Your task to perform on an android device: See recent photos Image 0: 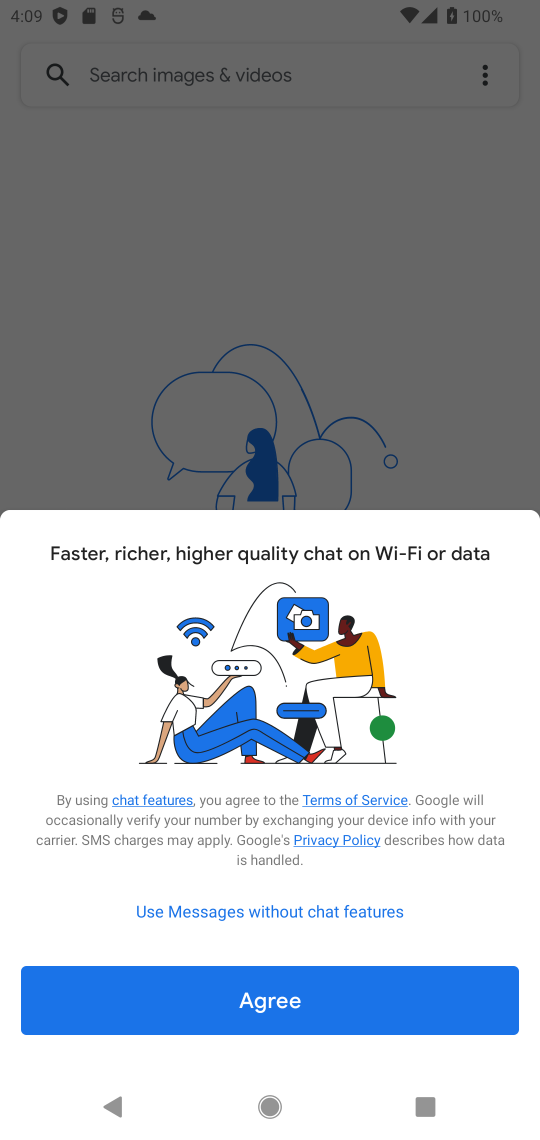
Step 0: press home button
Your task to perform on an android device: See recent photos Image 1: 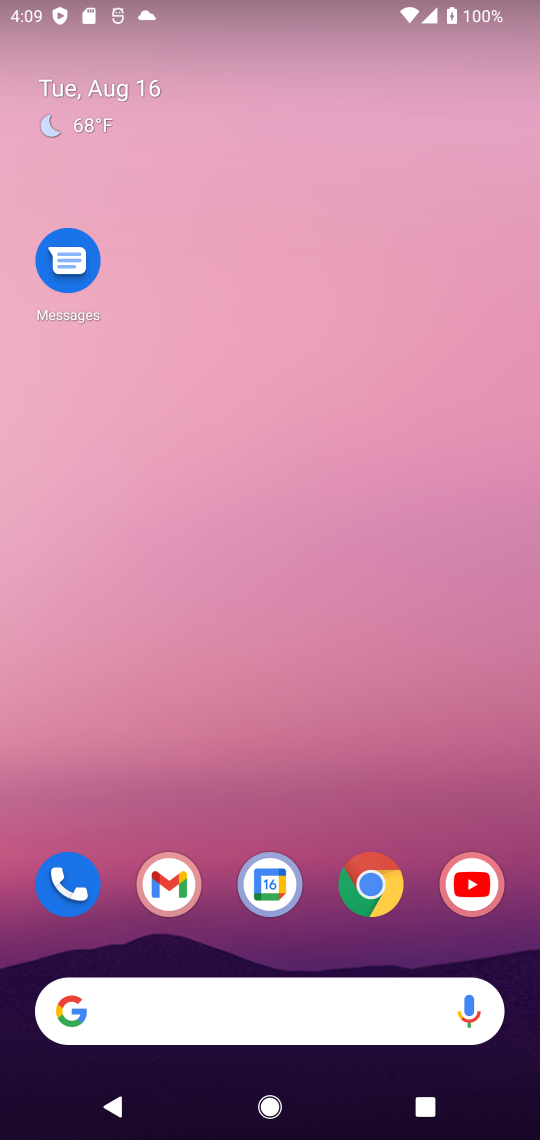
Step 1: drag from (146, 153) to (180, 16)
Your task to perform on an android device: See recent photos Image 2: 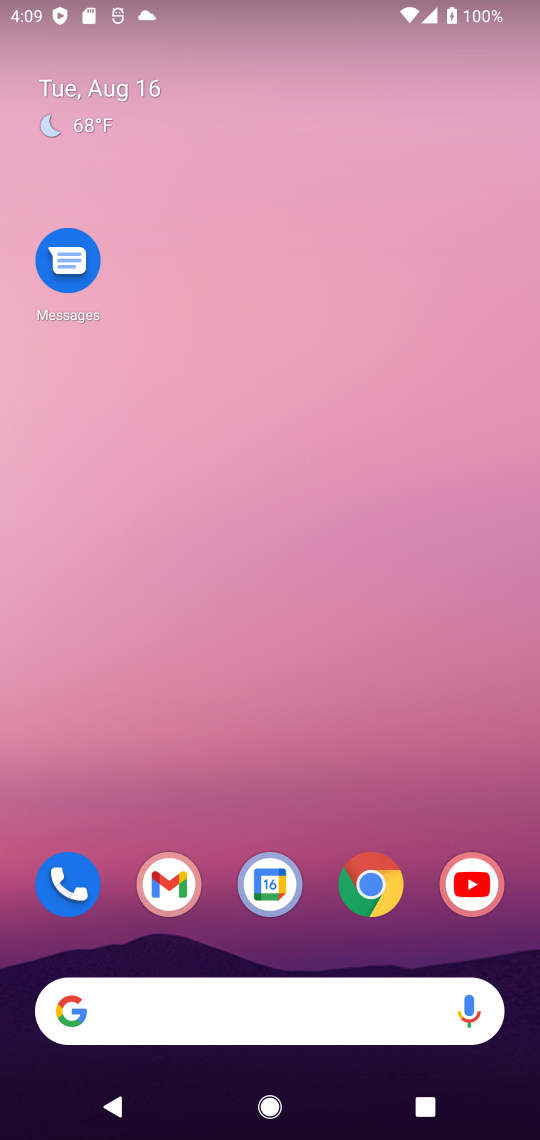
Step 2: drag from (94, 928) to (326, 28)
Your task to perform on an android device: See recent photos Image 3: 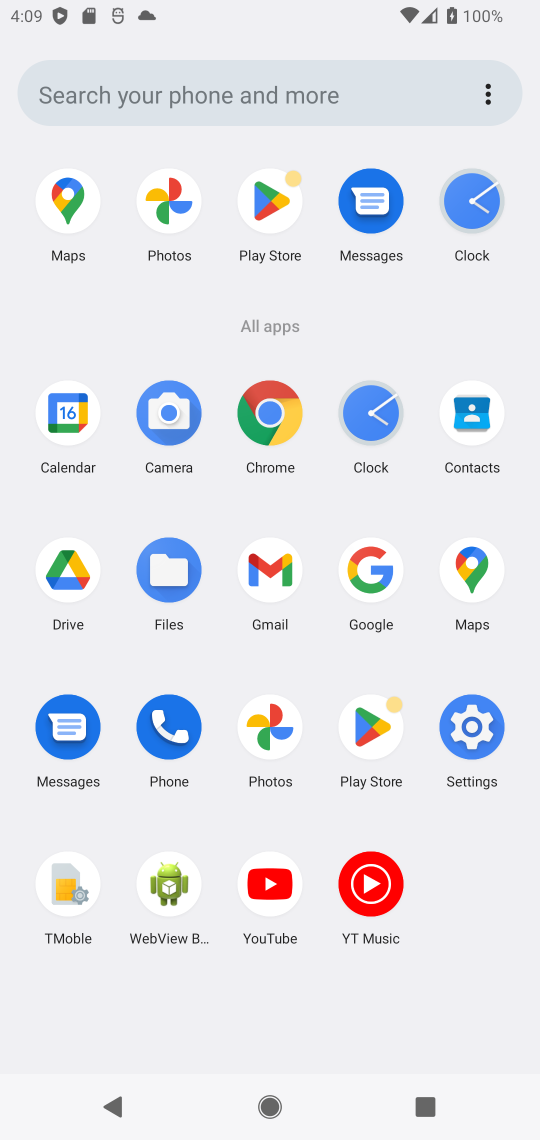
Step 3: click (269, 744)
Your task to perform on an android device: See recent photos Image 4: 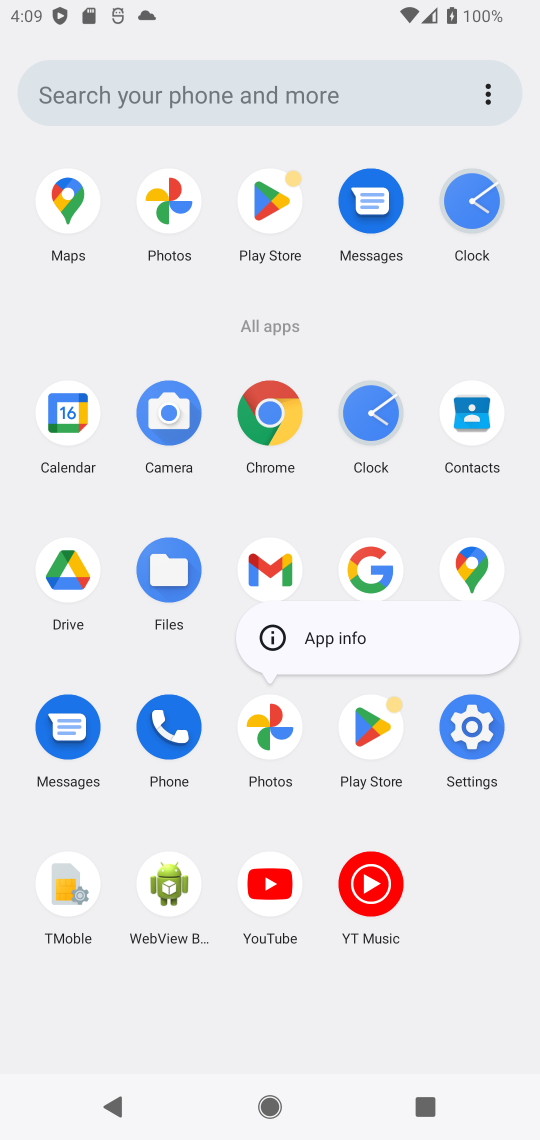
Step 4: click (269, 724)
Your task to perform on an android device: See recent photos Image 5: 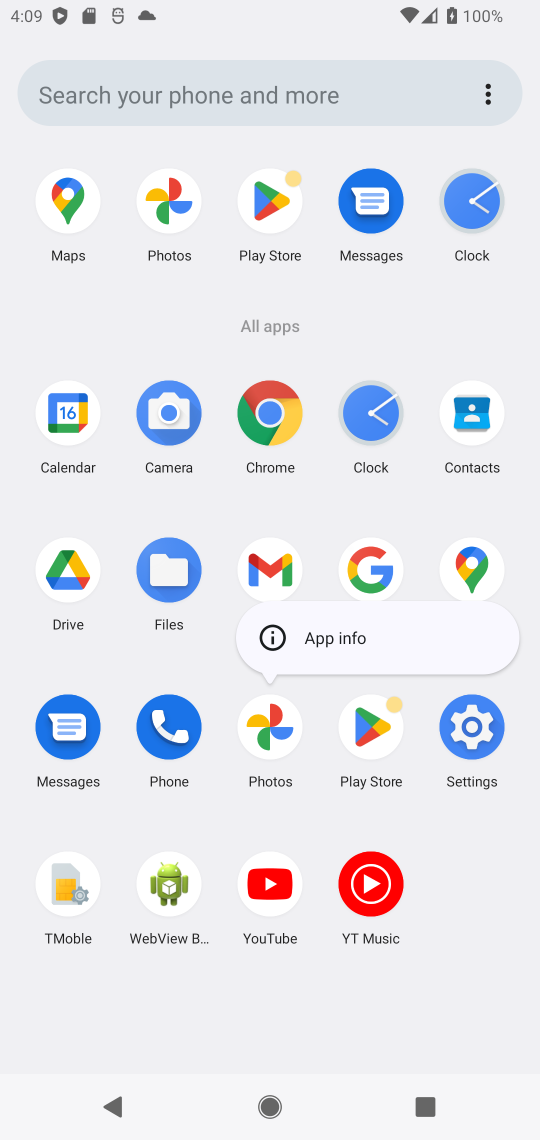
Step 5: click (251, 734)
Your task to perform on an android device: See recent photos Image 6: 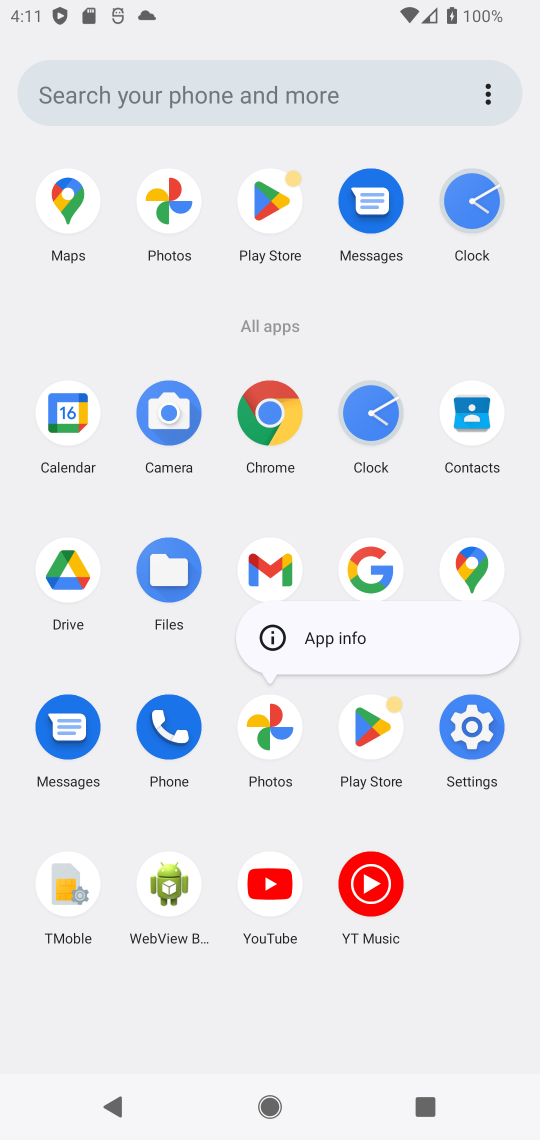
Step 6: task complete